Your task to perform on an android device: toggle pop-ups in chrome Image 0: 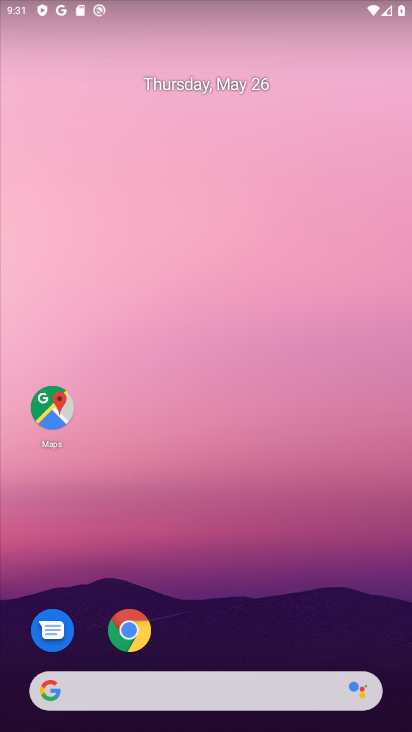
Step 0: drag from (211, 660) to (173, 111)
Your task to perform on an android device: toggle pop-ups in chrome Image 1: 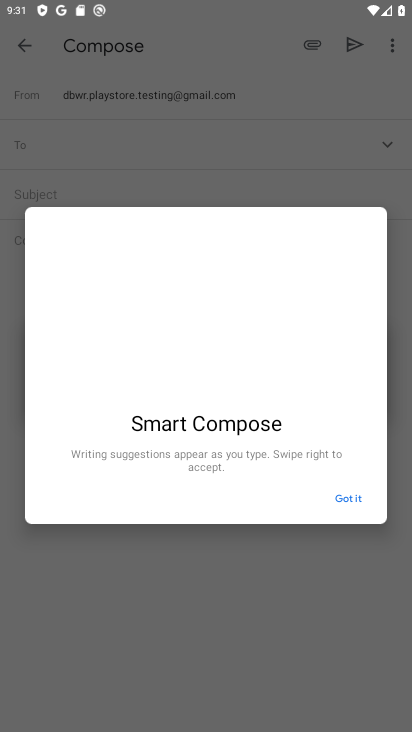
Step 1: click (119, 379)
Your task to perform on an android device: toggle pop-ups in chrome Image 2: 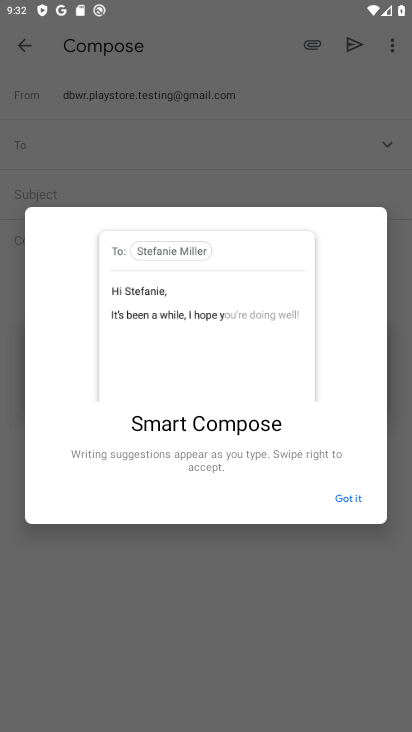
Step 2: press home button
Your task to perform on an android device: toggle pop-ups in chrome Image 3: 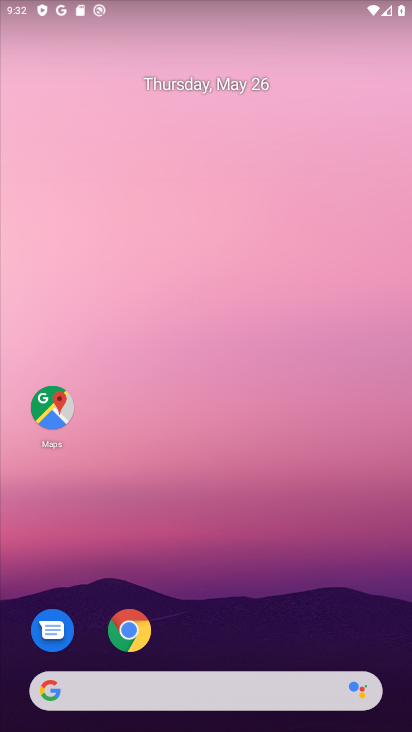
Step 3: click (120, 627)
Your task to perform on an android device: toggle pop-ups in chrome Image 4: 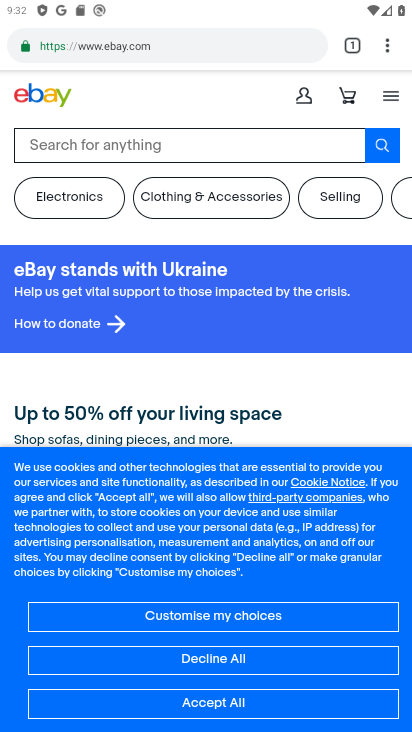
Step 4: click (382, 40)
Your task to perform on an android device: toggle pop-ups in chrome Image 5: 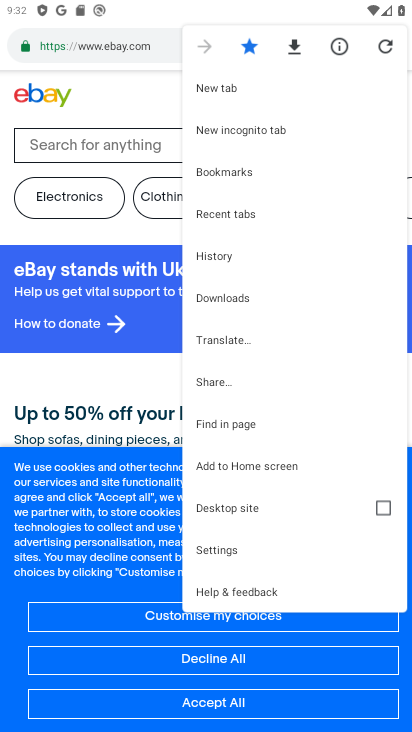
Step 5: click (259, 479)
Your task to perform on an android device: toggle pop-ups in chrome Image 6: 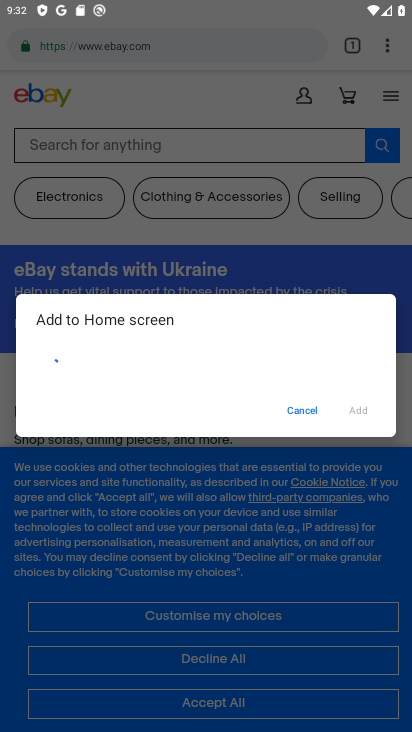
Step 6: click (306, 420)
Your task to perform on an android device: toggle pop-ups in chrome Image 7: 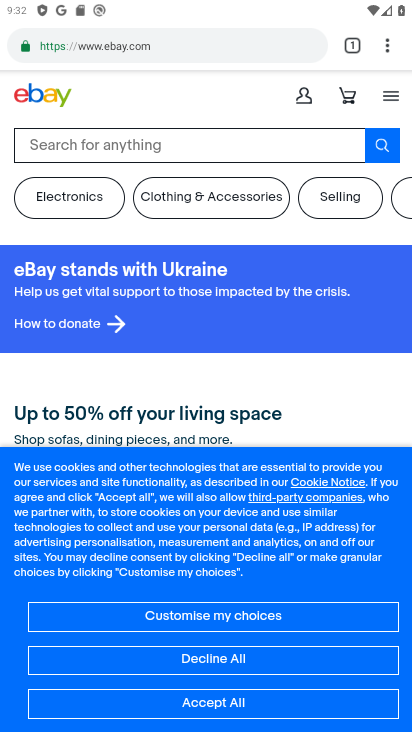
Step 7: click (383, 51)
Your task to perform on an android device: toggle pop-ups in chrome Image 8: 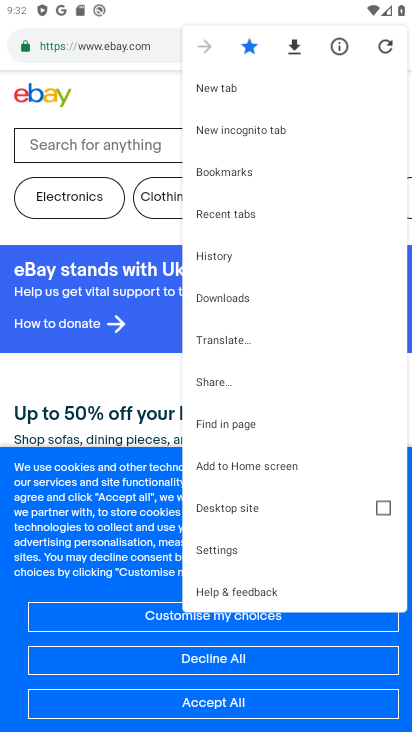
Step 8: click (220, 539)
Your task to perform on an android device: toggle pop-ups in chrome Image 9: 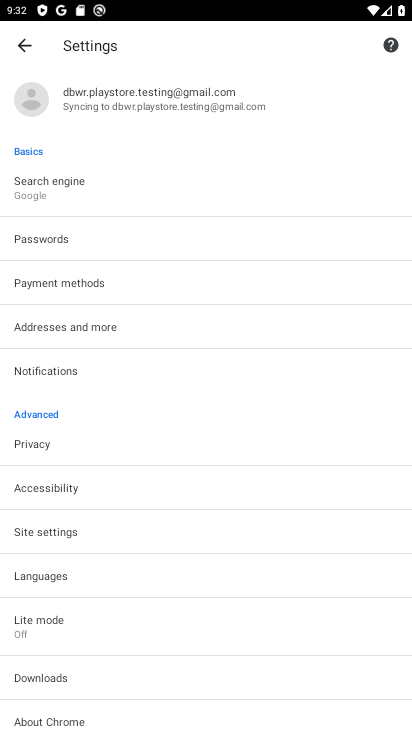
Step 9: click (54, 538)
Your task to perform on an android device: toggle pop-ups in chrome Image 10: 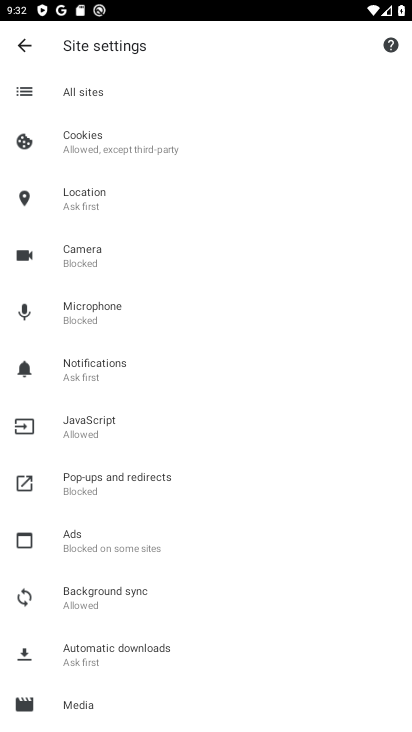
Step 10: click (101, 484)
Your task to perform on an android device: toggle pop-ups in chrome Image 11: 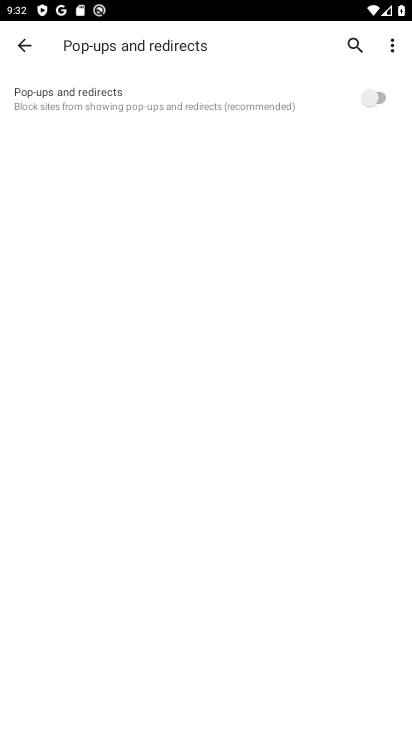
Step 11: click (371, 92)
Your task to perform on an android device: toggle pop-ups in chrome Image 12: 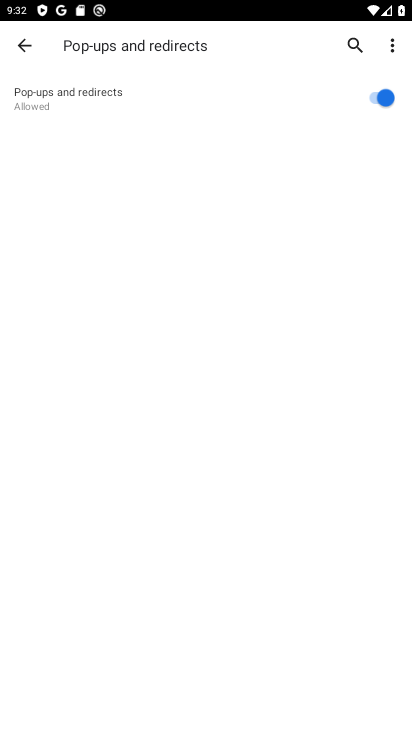
Step 12: task complete